Your task to perform on an android device: turn on notifications settings in the gmail app Image 0: 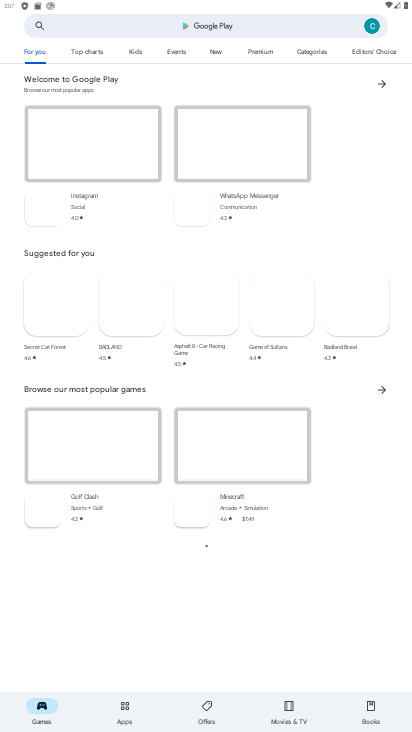
Step 0: press home button
Your task to perform on an android device: turn on notifications settings in the gmail app Image 1: 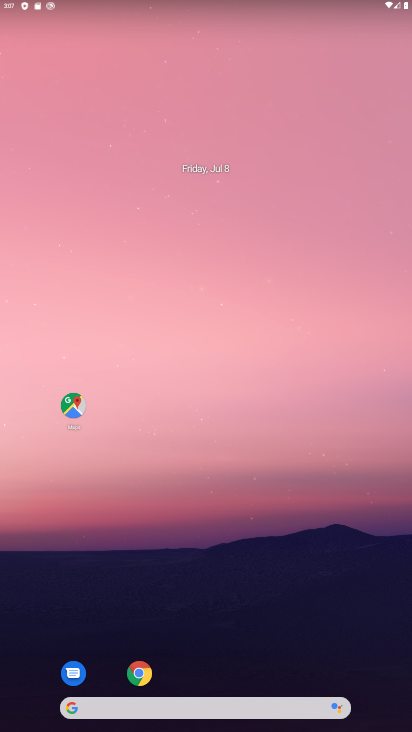
Step 1: drag from (181, 667) to (327, 1)
Your task to perform on an android device: turn on notifications settings in the gmail app Image 2: 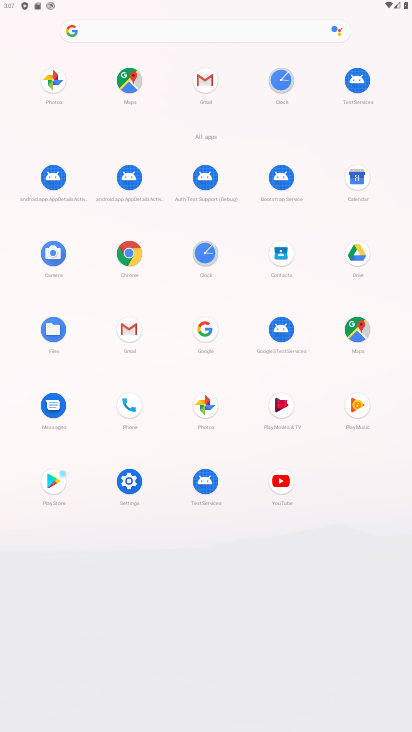
Step 2: click (135, 335)
Your task to perform on an android device: turn on notifications settings in the gmail app Image 3: 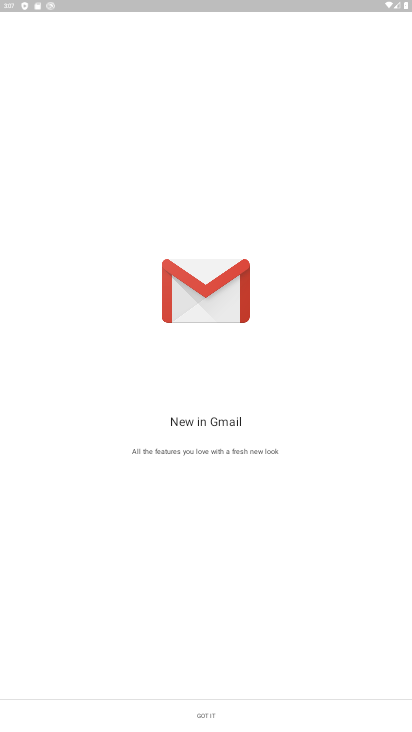
Step 3: click (281, 723)
Your task to perform on an android device: turn on notifications settings in the gmail app Image 4: 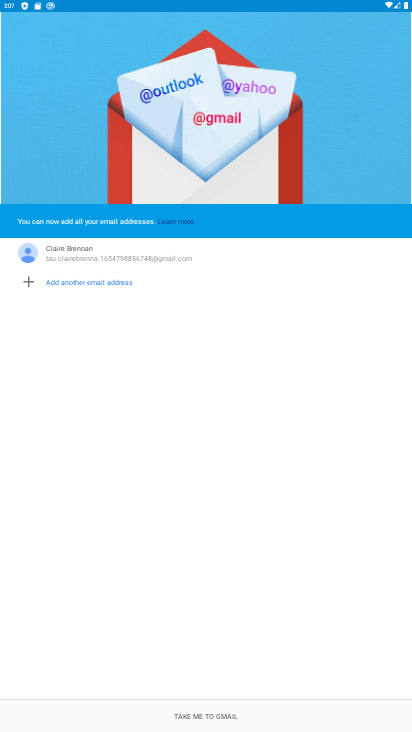
Step 4: click (270, 714)
Your task to perform on an android device: turn on notifications settings in the gmail app Image 5: 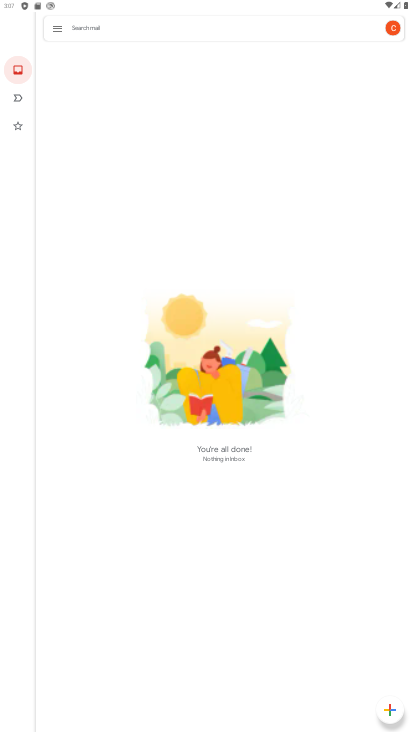
Step 5: click (59, 33)
Your task to perform on an android device: turn on notifications settings in the gmail app Image 6: 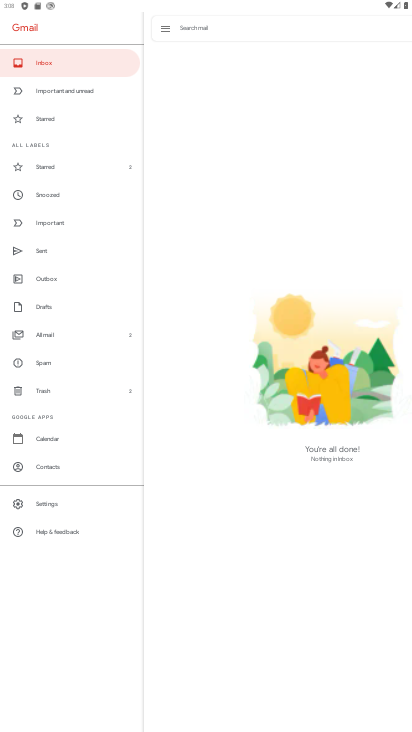
Step 6: click (59, 496)
Your task to perform on an android device: turn on notifications settings in the gmail app Image 7: 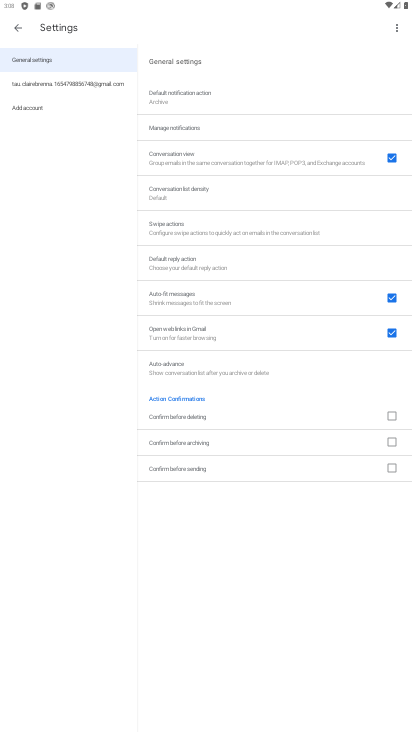
Step 7: click (200, 125)
Your task to perform on an android device: turn on notifications settings in the gmail app Image 8: 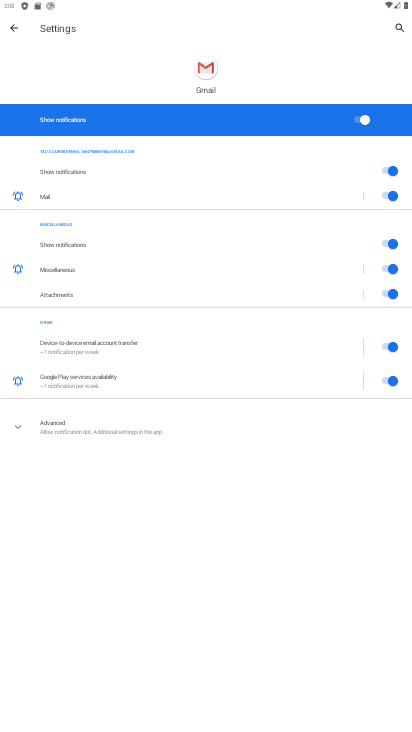
Step 8: task complete